Your task to perform on an android device: toggle notifications settings in the gmail app Image 0: 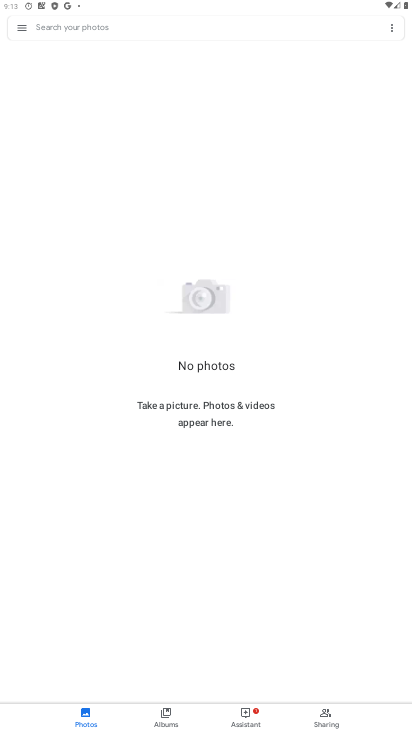
Step 0: drag from (230, 571) to (229, 154)
Your task to perform on an android device: toggle notifications settings in the gmail app Image 1: 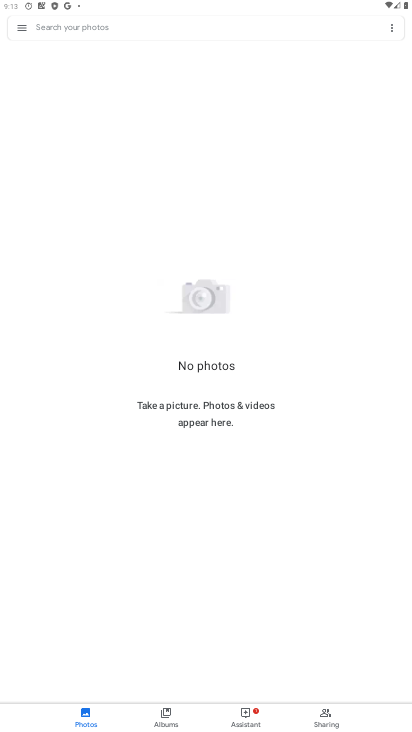
Step 1: drag from (191, 549) to (237, 196)
Your task to perform on an android device: toggle notifications settings in the gmail app Image 2: 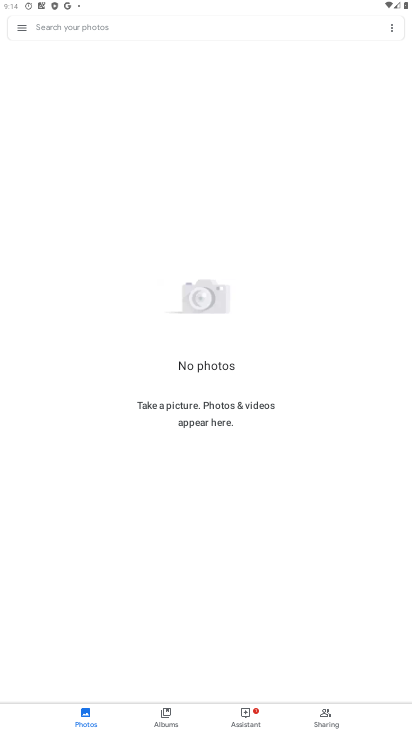
Step 2: drag from (162, 665) to (244, 277)
Your task to perform on an android device: toggle notifications settings in the gmail app Image 3: 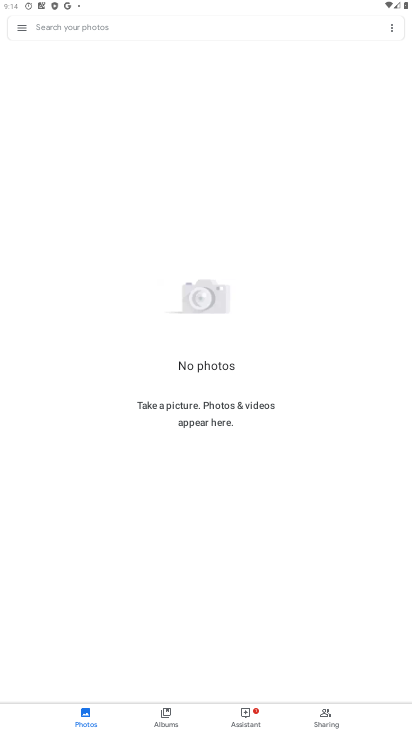
Step 3: drag from (156, 615) to (211, 314)
Your task to perform on an android device: toggle notifications settings in the gmail app Image 4: 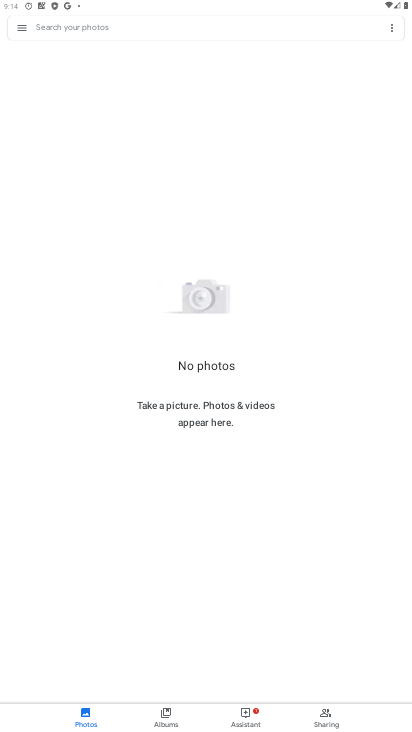
Step 4: drag from (167, 435) to (189, 103)
Your task to perform on an android device: toggle notifications settings in the gmail app Image 5: 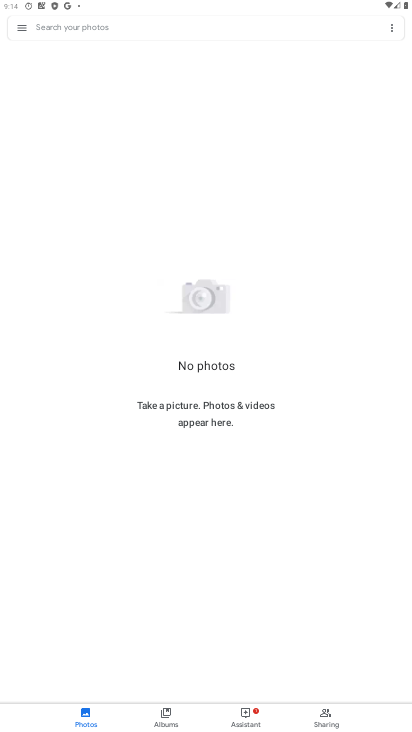
Step 5: click (12, 21)
Your task to perform on an android device: toggle notifications settings in the gmail app Image 6: 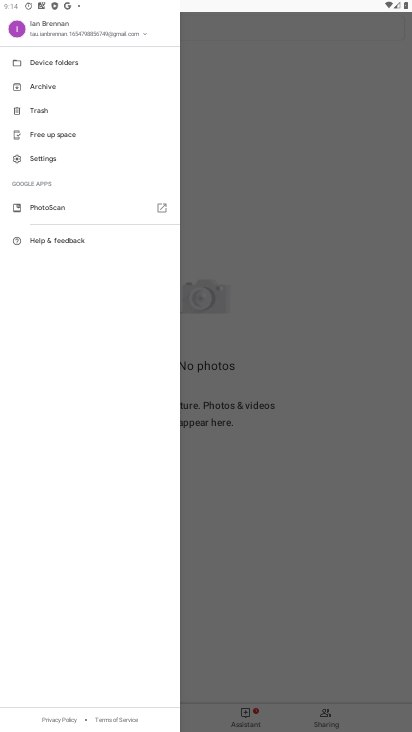
Step 6: click (40, 157)
Your task to perform on an android device: toggle notifications settings in the gmail app Image 7: 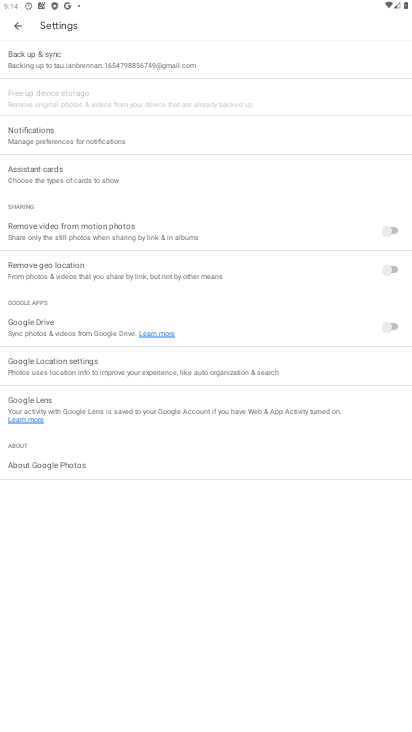
Step 7: click (88, 126)
Your task to perform on an android device: toggle notifications settings in the gmail app Image 8: 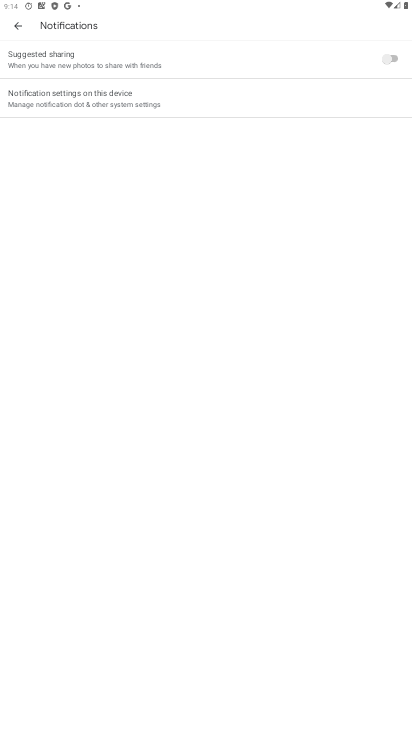
Step 8: click (154, 89)
Your task to perform on an android device: toggle notifications settings in the gmail app Image 9: 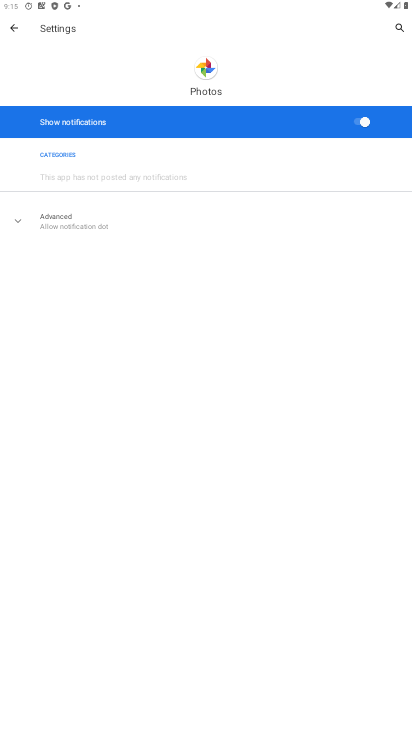
Step 9: click (354, 123)
Your task to perform on an android device: toggle notifications settings in the gmail app Image 10: 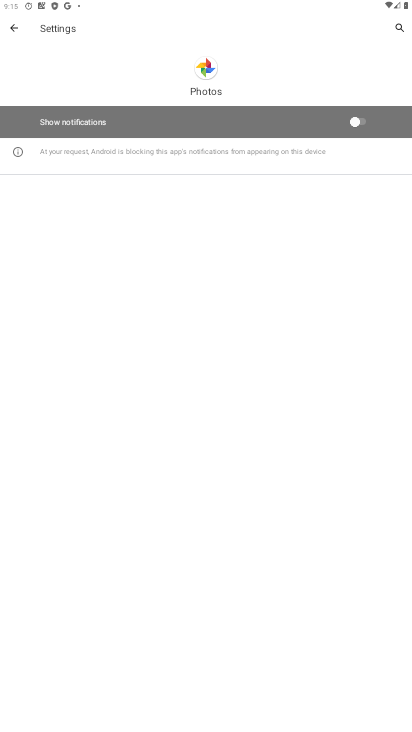
Step 10: task complete